Your task to perform on an android device: Open Google Maps Image 0: 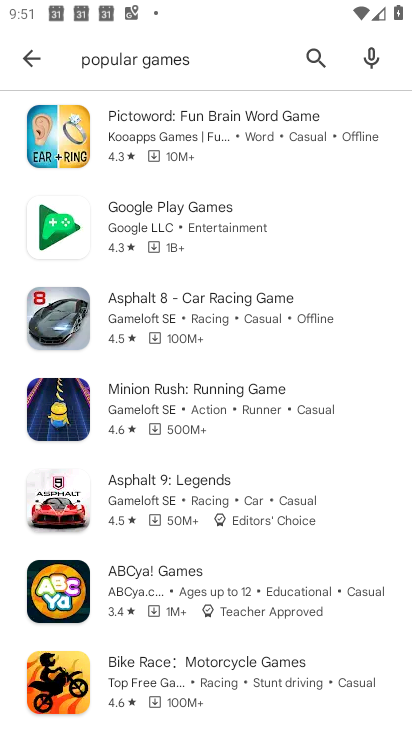
Step 0: press home button
Your task to perform on an android device: Open Google Maps Image 1: 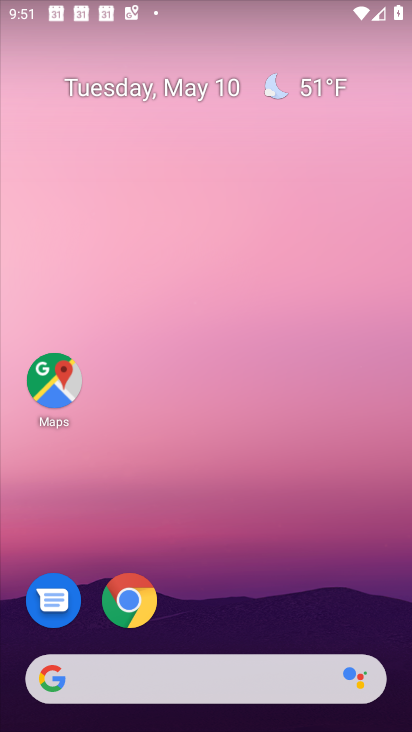
Step 1: click (47, 392)
Your task to perform on an android device: Open Google Maps Image 2: 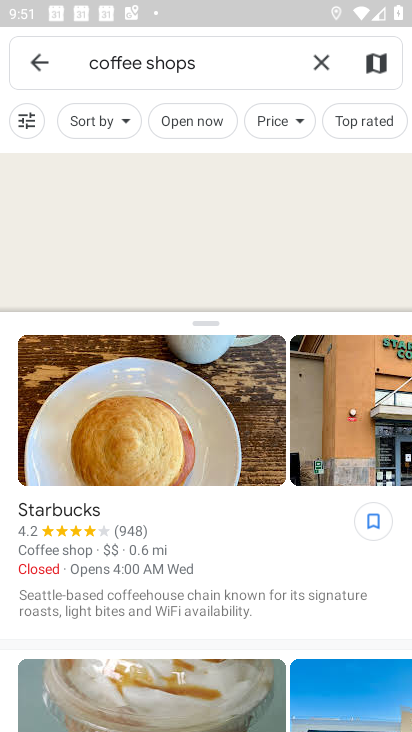
Step 2: task complete